Your task to perform on an android device: Find coffee shops on Maps Image 0: 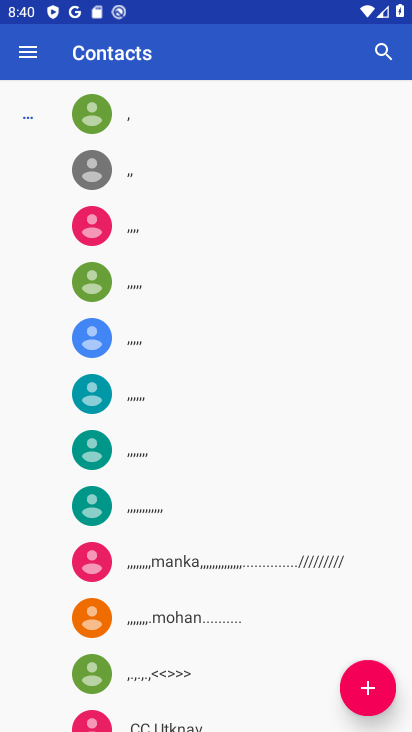
Step 0: press home button
Your task to perform on an android device: Find coffee shops on Maps Image 1: 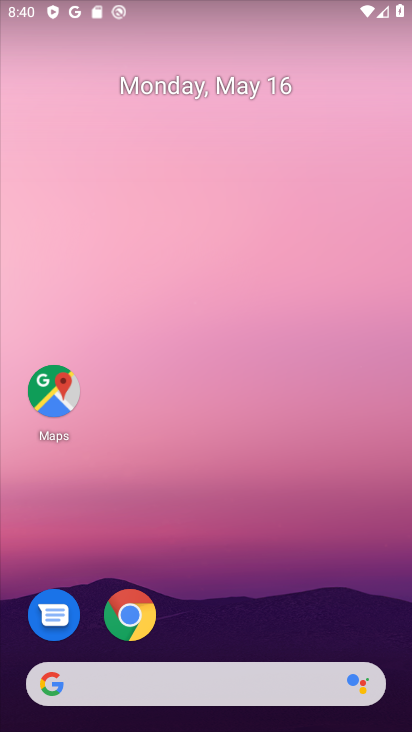
Step 1: click (10, 542)
Your task to perform on an android device: Find coffee shops on Maps Image 2: 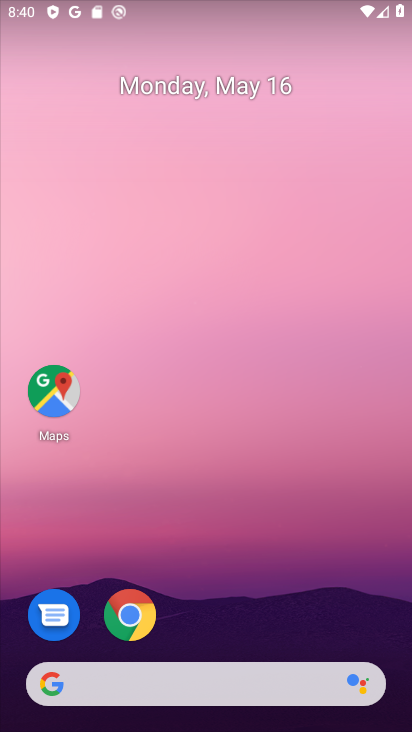
Step 2: click (51, 406)
Your task to perform on an android device: Find coffee shops on Maps Image 3: 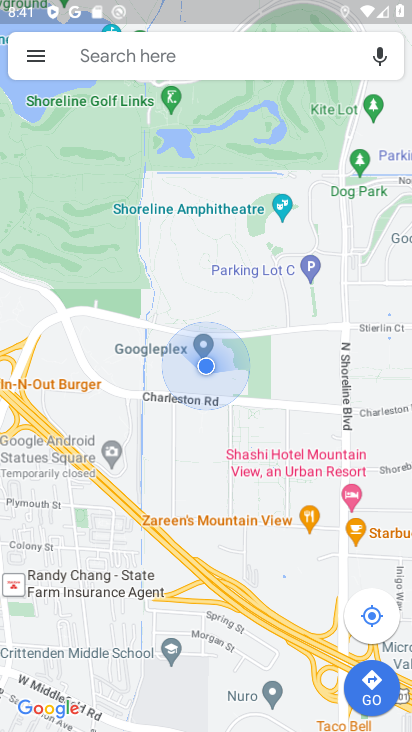
Step 3: click (203, 55)
Your task to perform on an android device: Find coffee shops on Maps Image 4: 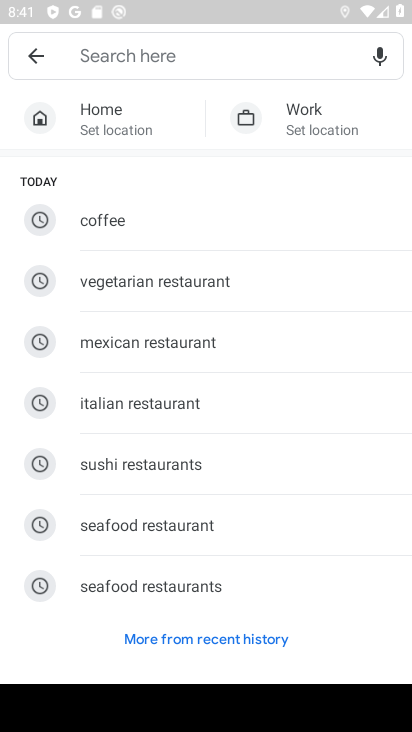
Step 4: click (117, 226)
Your task to perform on an android device: Find coffee shops on Maps Image 5: 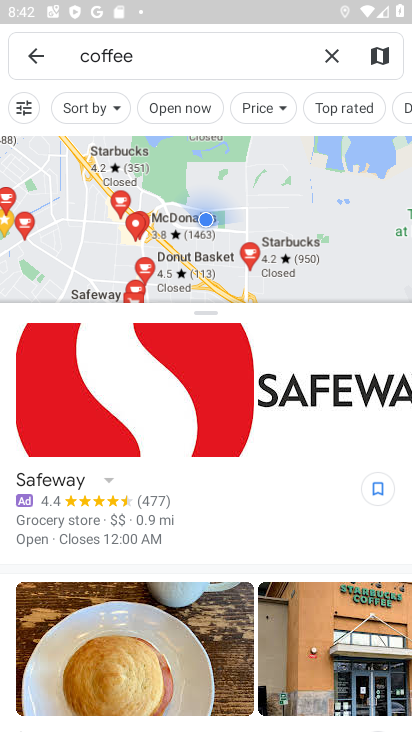
Step 5: task complete